Your task to perform on an android device: see tabs open on other devices in the chrome app Image 0: 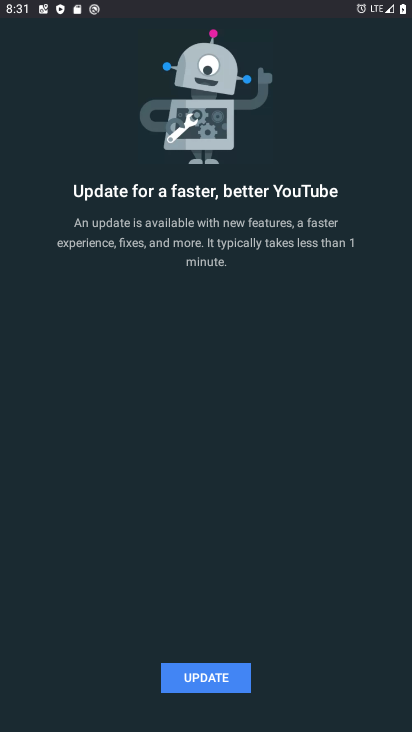
Step 0: press home button
Your task to perform on an android device: see tabs open on other devices in the chrome app Image 1: 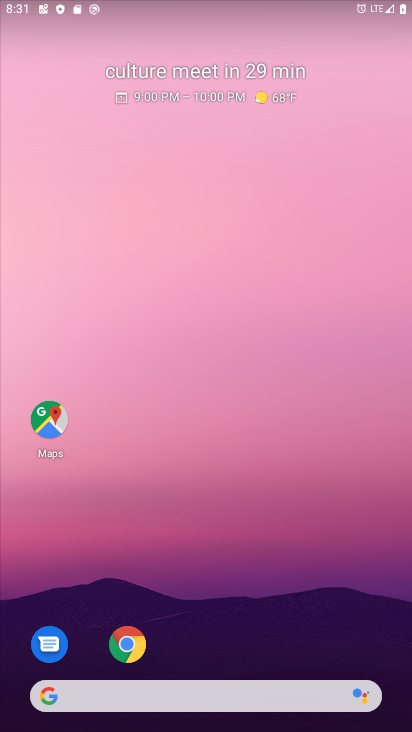
Step 1: drag from (234, 702) to (169, 174)
Your task to perform on an android device: see tabs open on other devices in the chrome app Image 2: 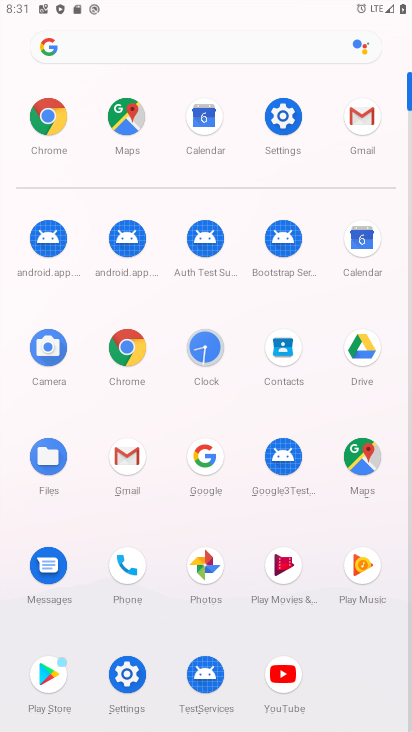
Step 2: click (60, 117)
Your task to perform on an android device: see tabs open on other devices in the chrome app Image 3: 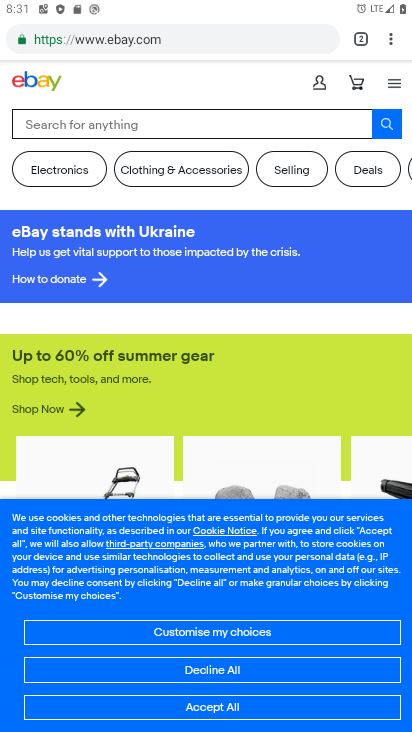
Step 3: click (362, 52)
Your task to perform on an android device: see tabs open on other devices in the chrome app Image 4: 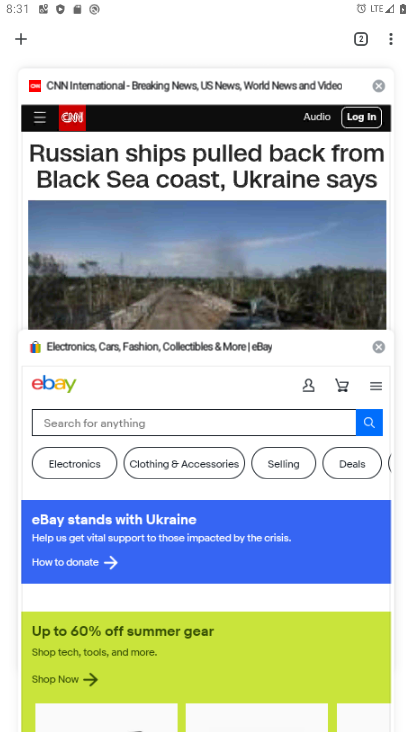
Step 4: click (10, 46)
Your task to perform on an android device: see tabs open on other devices in the chrome app Image 5: 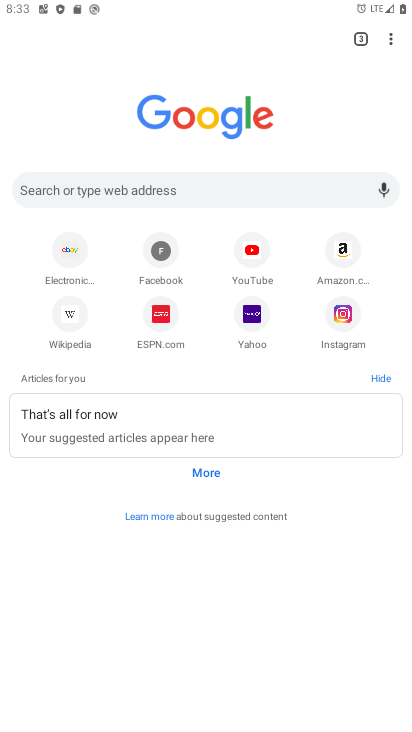
Step 5: task complete